Your task to perform on an android device: Open Amazon Image 0: 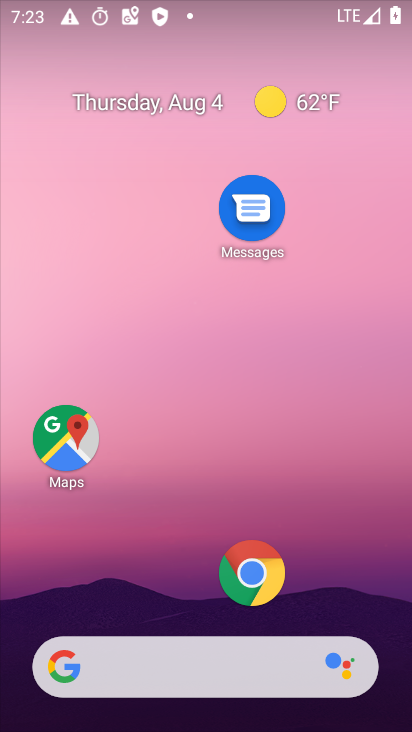
Step 0: press home button
Your task to perform on an android device: Open Amazon Image 1: 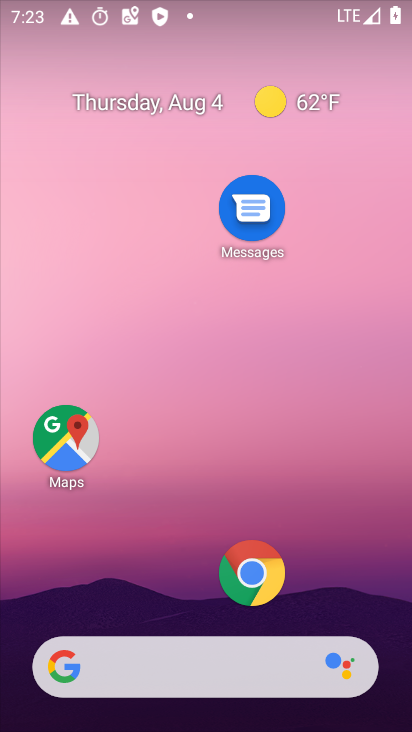
Step 1: click (56, 666)
Your task to perform on an android device: Open Amazon Image 2: 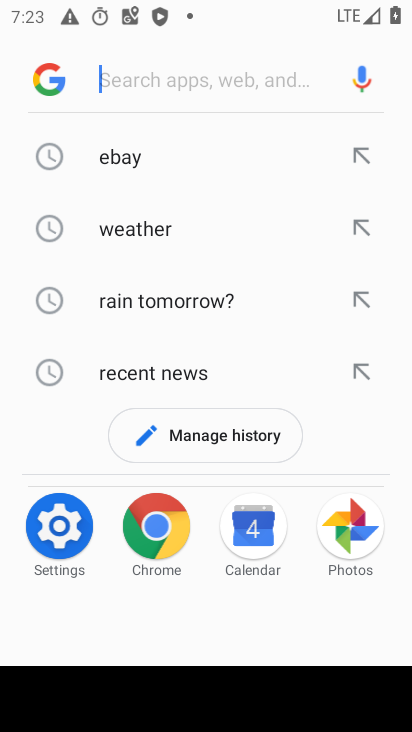
Step 2: type "Amazon"
Your task to perform on an android device: Open Amazon Image 3: 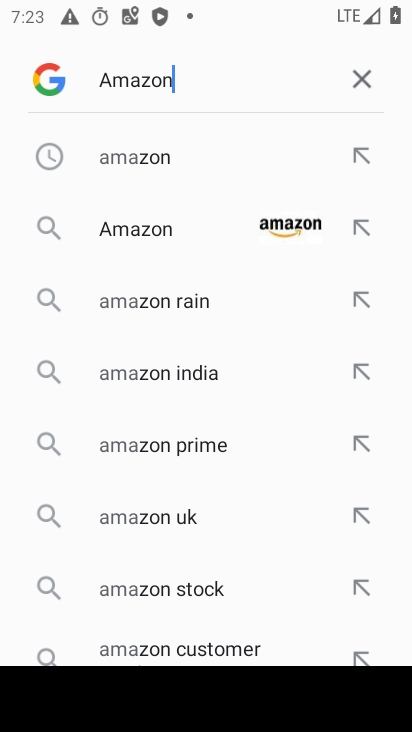
Step 3: press enter
Your task to perform on an android device: Open Amazon Image 4: 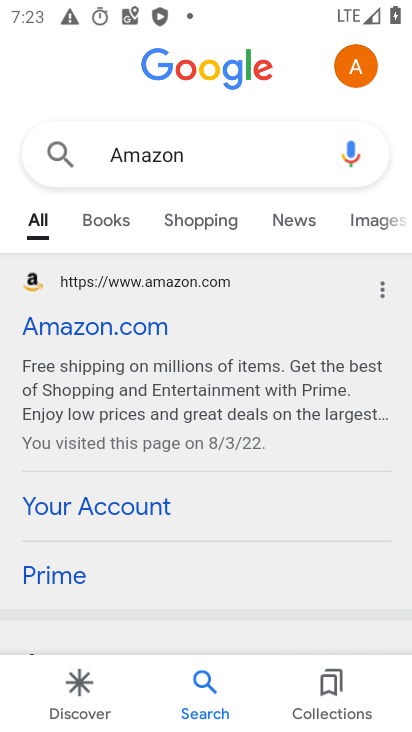
Step 4: click (126, 329)
Your task to perform on an android device: Open Amazon Image 5: 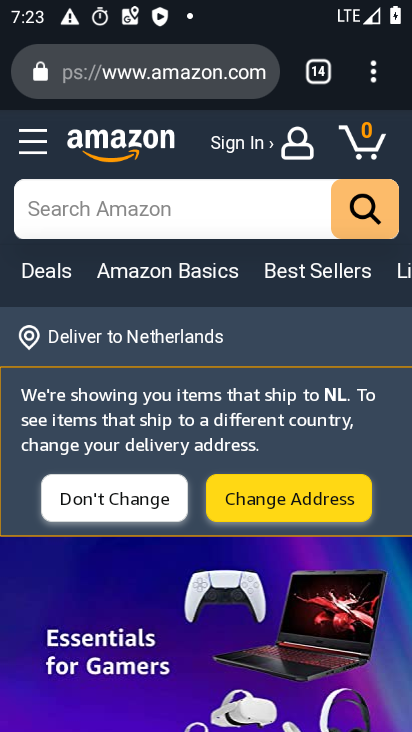
Step 5: task complete